Your task to perform on an android device: toggle translation in the chrome app Image 0: 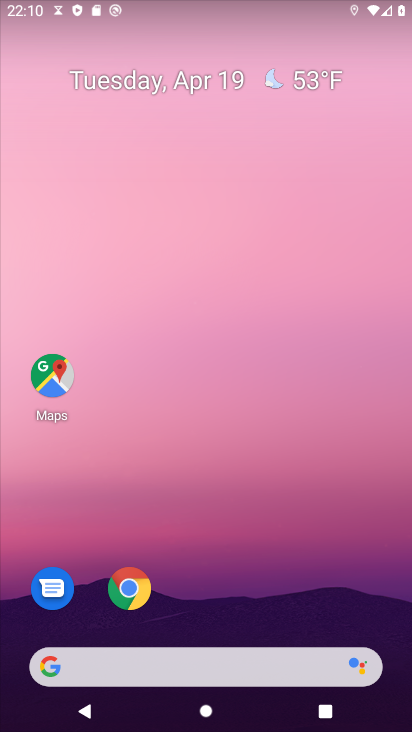
Step 0: click (129, 589)
Your task to perform on an android device: toggle translation in the chrome app Image 1: 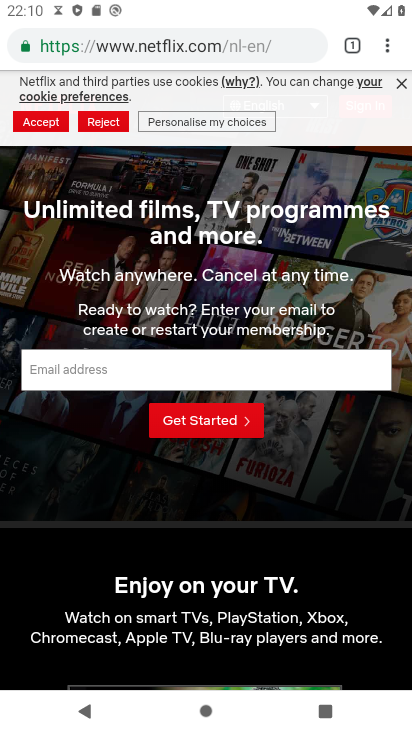
Step 1: click (386, 48)
Your task to perform on an android device: toggle translation in the chrome app Image 2: 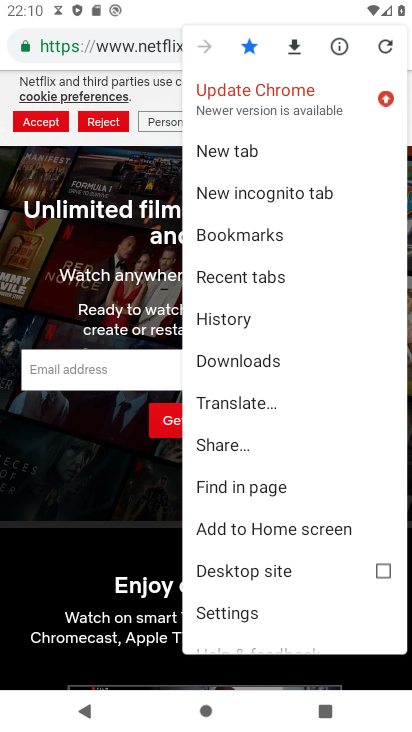
Step 2: click (238, 612)
Your task to perform on an android device: toggle translation in the chrome app Image 3: 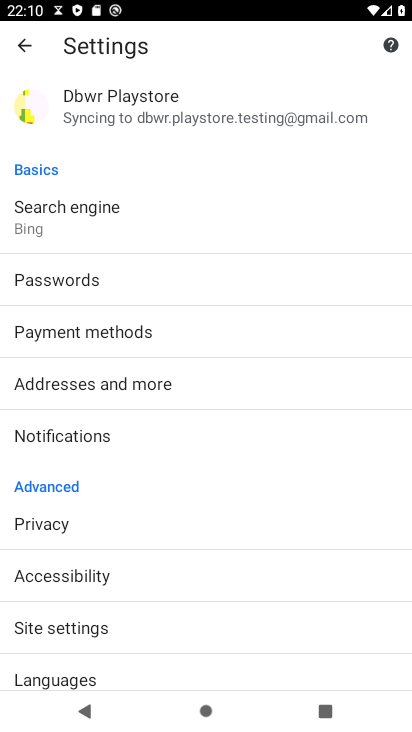
Step 3: click (88, 682)
Your task to perform on an android device: toggle translation in the chrome app Image 4: 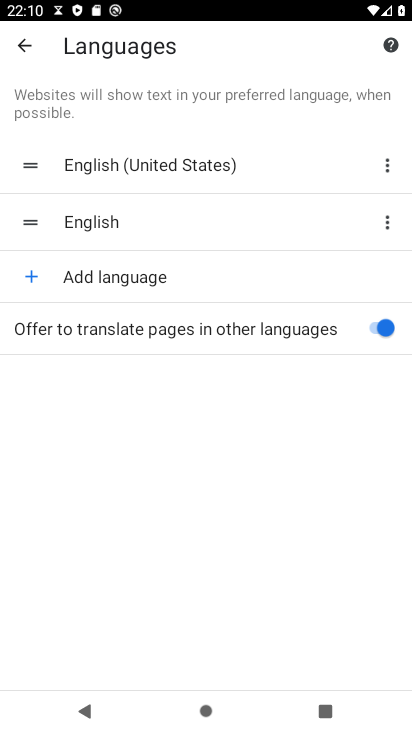
Step 4: click (386, 327)
Your task to perform on an android device: toggle translation in the chrome app Image 5: 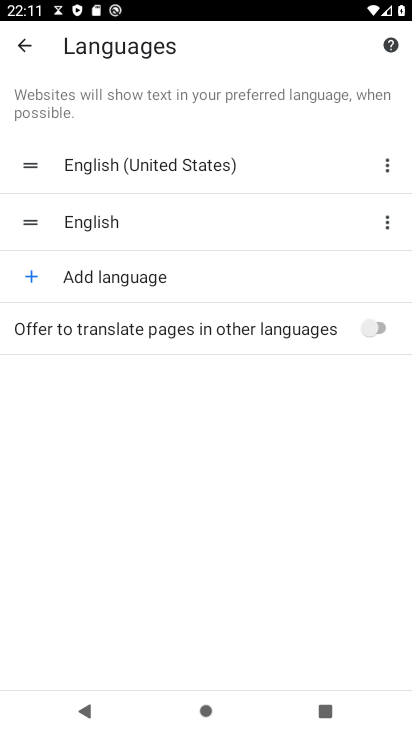
Step 5: task complete